Your task to perform on an android device: read, delete, or share a saved page in the chrome app Image 0: 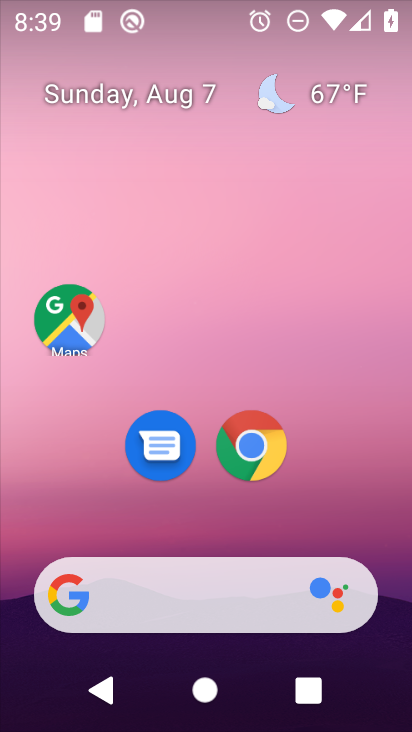
Step 0: press home button
Your task to perform on an android device: read, delete, or share a saved page in the chrome app Image 1: 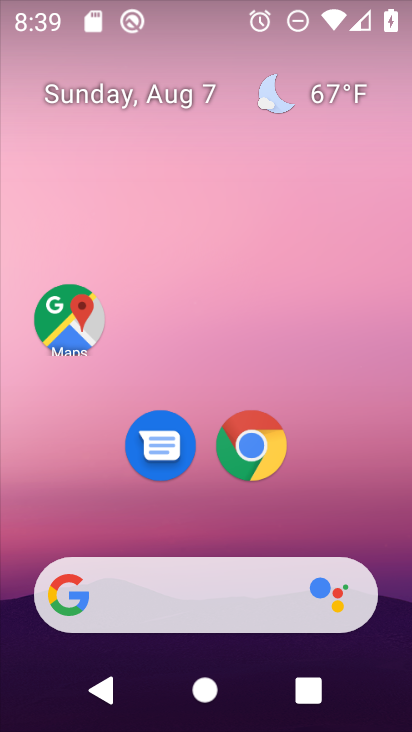
Step 1: click (246, 438)
Your task to perform on an android device: read, delete, or share a saved page in the chrome app Image 2: 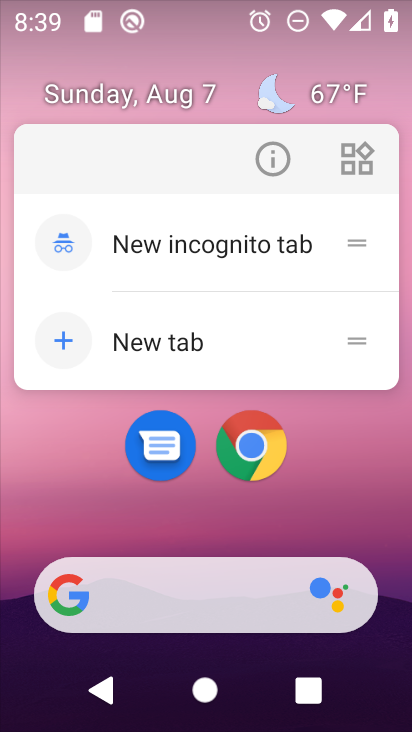
Step 2: click (246, 438)
Your task to perform on an android device: read, delete, or share a saved page in the chrome app Image 3: 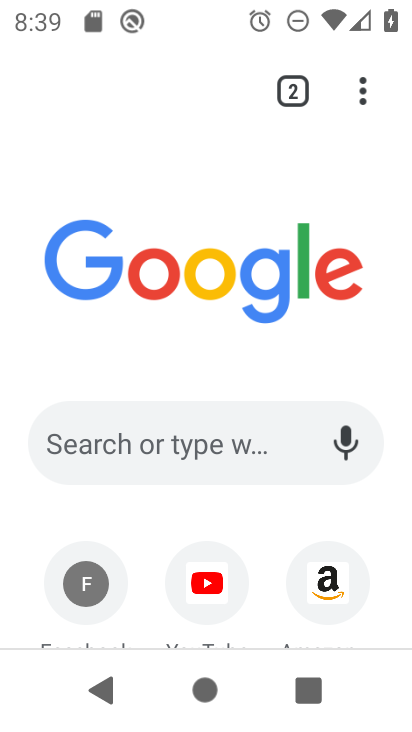
Step 3: drag from (333, 522) to (356, 118)
Your task to perform on an android device: read, delete, or share a saved page in the chrome app Image 4: 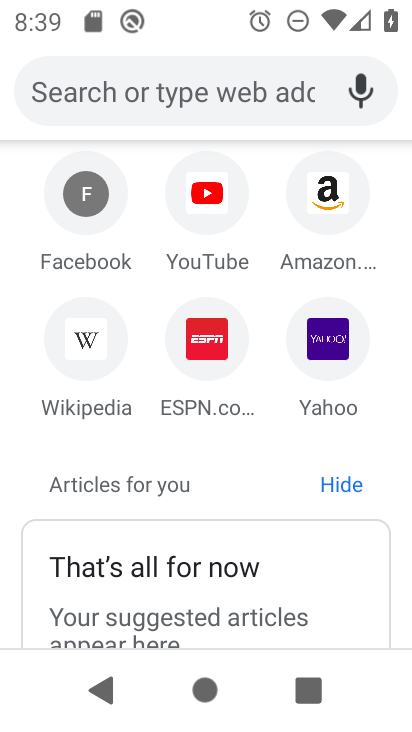
Step 4: drag from (269, 169) to (288, 545)
Your task to perform on an android device: read, delete, or share a saved page in the chrome app Image 5: 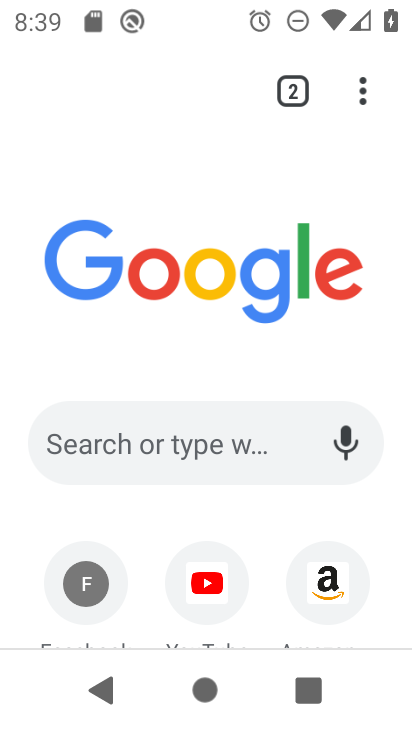
Step 5: click (360, 86)
Your task to perform on an android device: read, delete, or share a saved page in the chrome app Image 6: 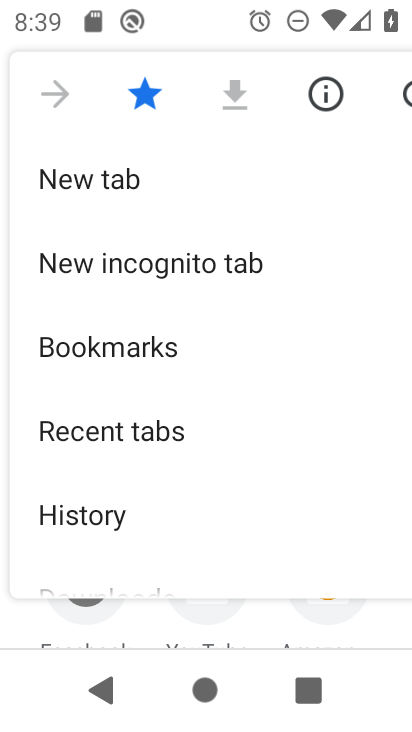
Step 6: drag from (189, 531) to (240, 173)
Your task to perform on an android device: read, delete, or share a saved page in the chrome app Image 7: 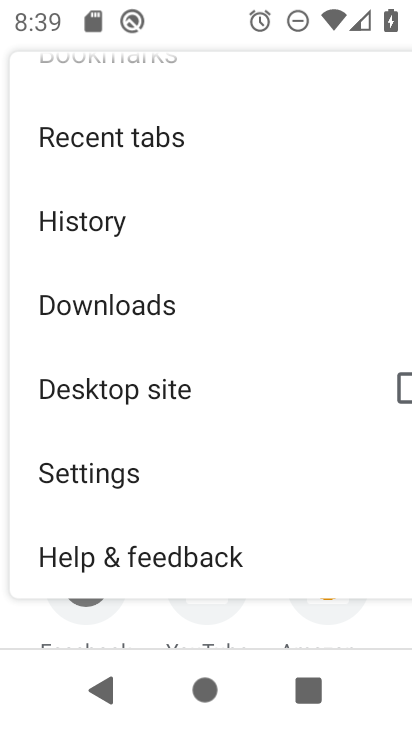
Step 7: click (180, 304)
Your task to perform on an android device: read, delete, or share a saved page in the chrome app Image 8: 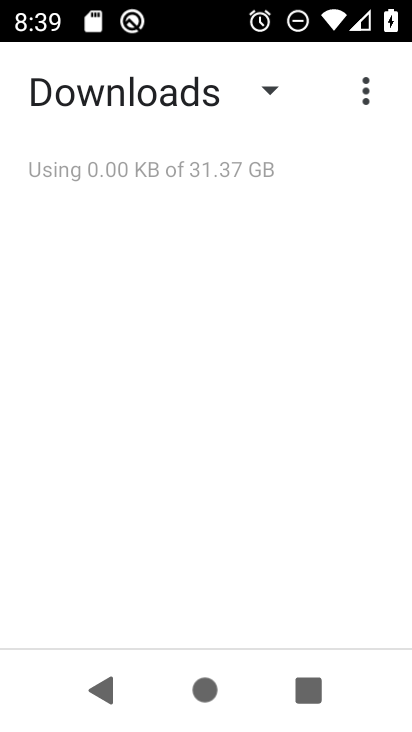
Step 8: task complete